Your task to perform on an android device: Open Google Image 0: 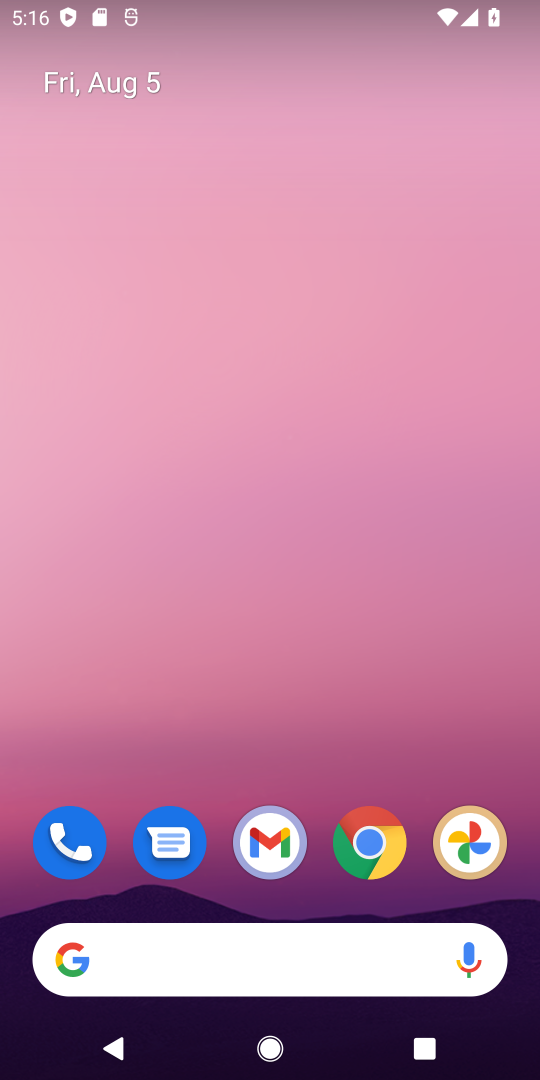
Step 0: press home button
Your task to perform on an android device: Open Google Image 1: 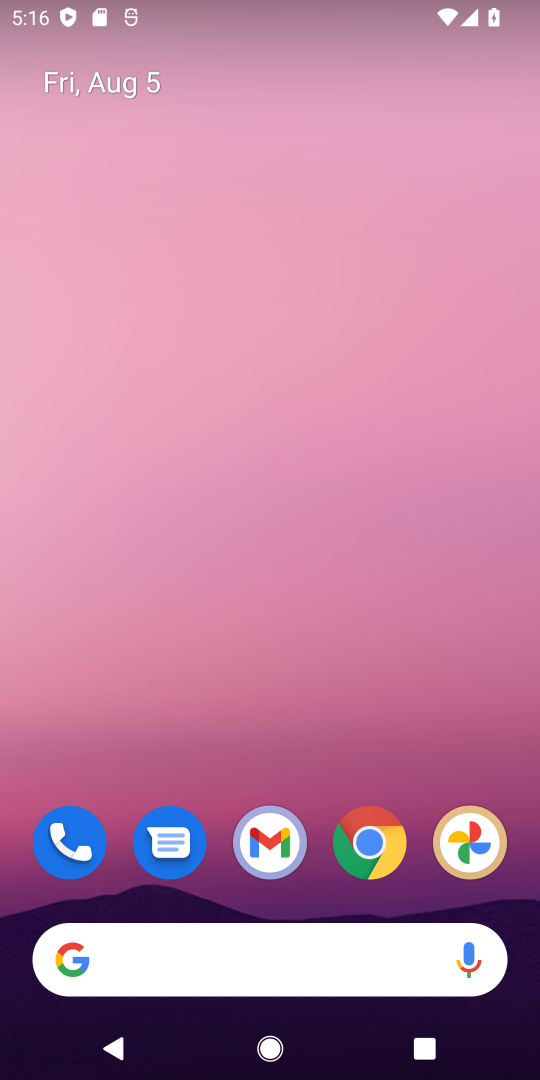
Step 1: drag from (280, 764) to (179, 13)
Your task to perform on an android device: Open Google Image 2: 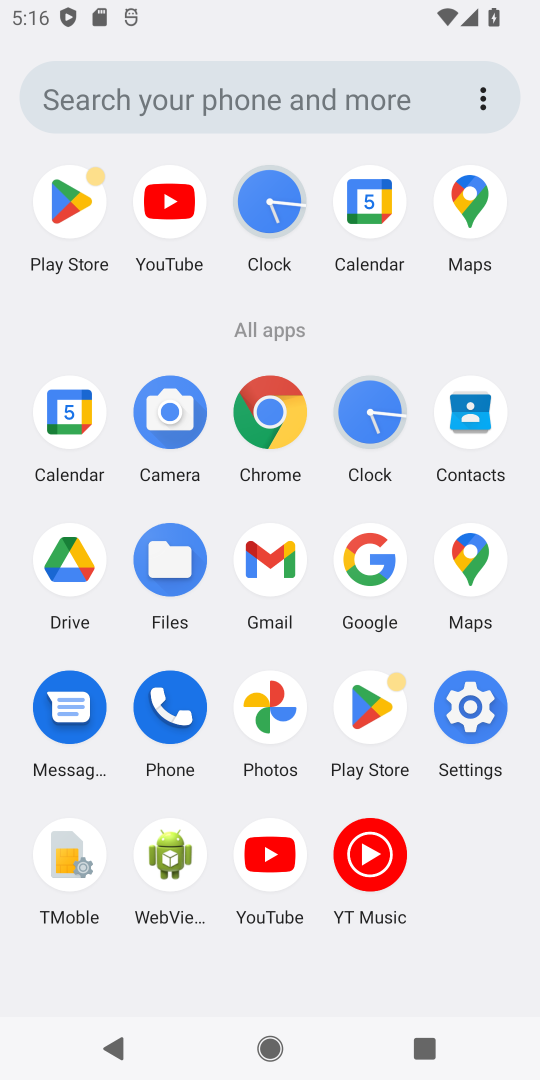
Step 2: click (382, 548)
Your task to perform on an android device: Open Google Image 3: 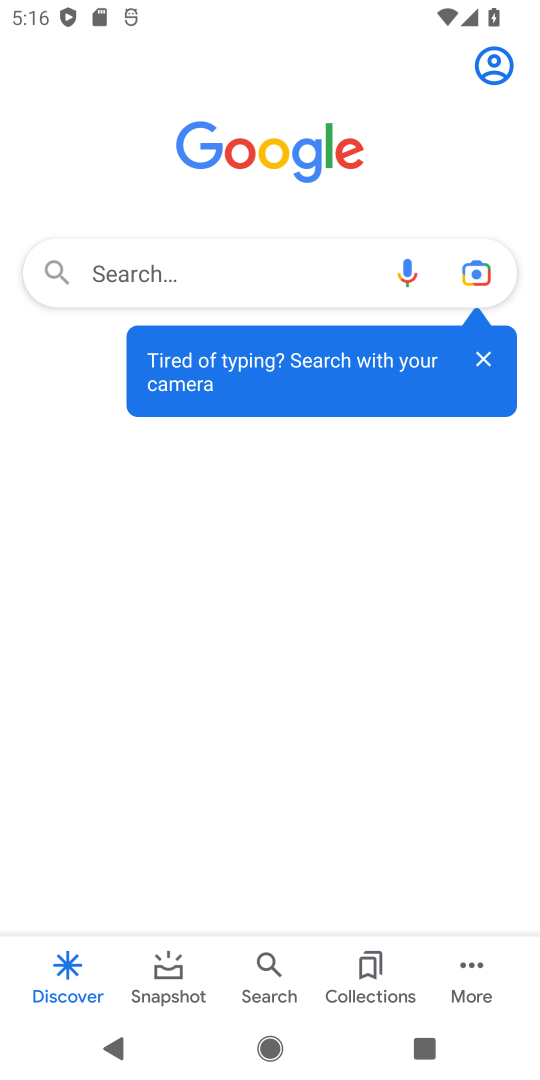
Step 3: task complete